Your task to perform on an android device: What's the weather today? Image 0: 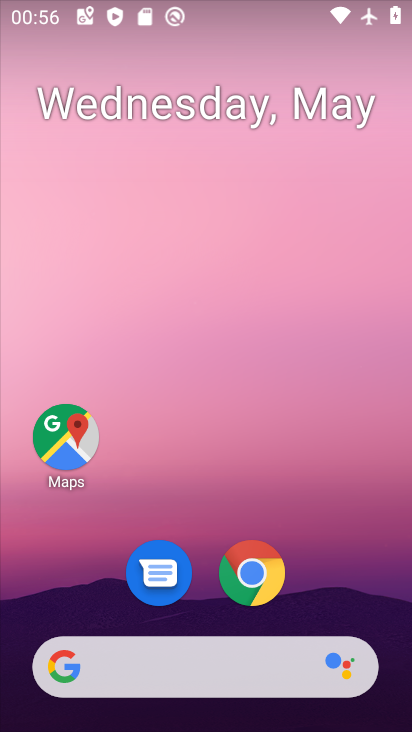
Step 0: drag from (321, 578) to (326, 261)
Your task to perform on an android device: What's the weather today? Image 1: 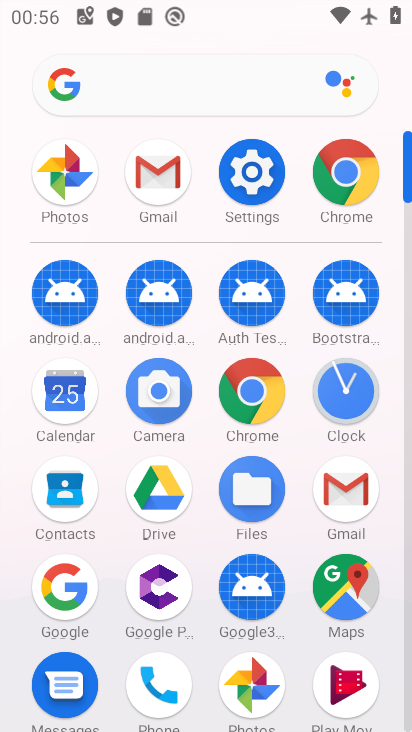
Step 1: click (252, 384)
Your task to perform on an android device: What's the weather today? Image 2: 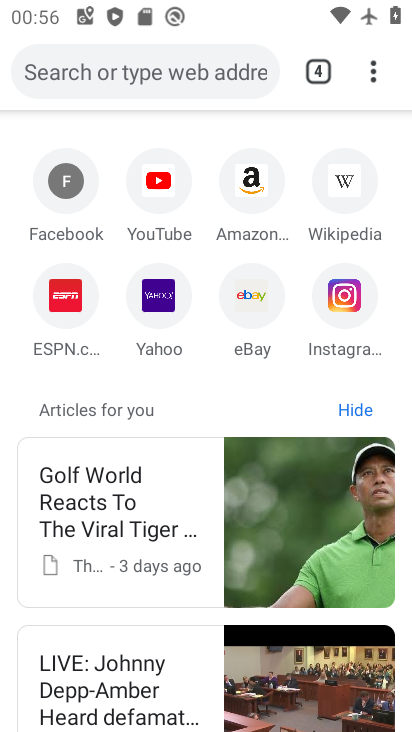
Step 2: click (113, 65)
Your task to perform on an android device: What's the weather today? Image 3: 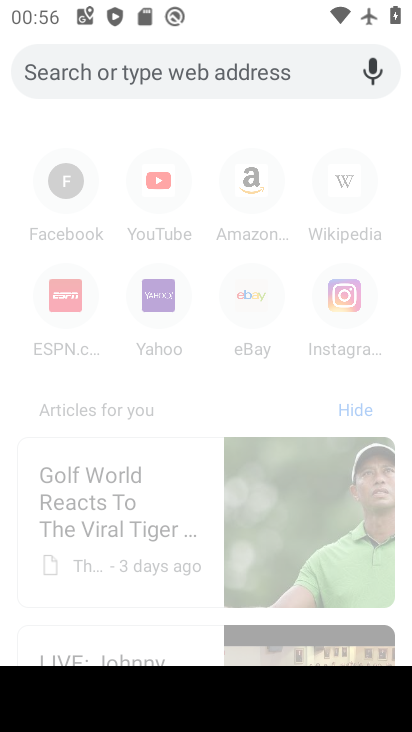
Step 3: type "What's the weather today?"
Your task to perform on an android device: What's the weather today? Image 4: 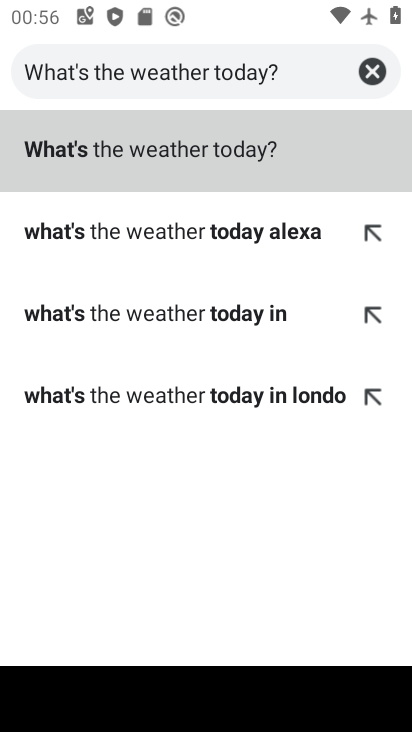
Step 4: click (292, 141)
Your task to perform on an android device: What's the weather today? Image 5: 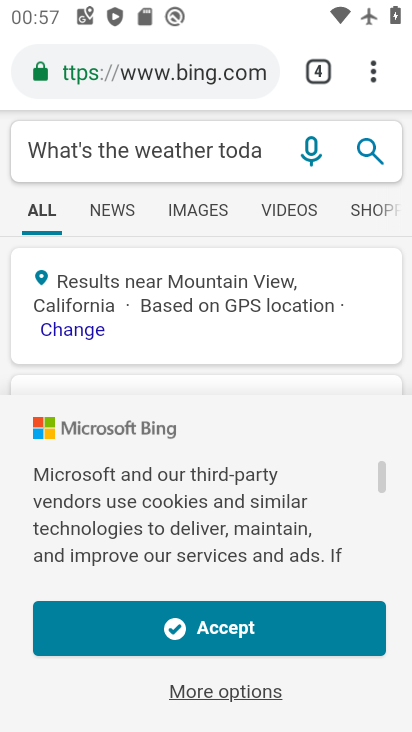
Step 5: task complete